Your task to perform on an android device: Go to eBay Image 0: 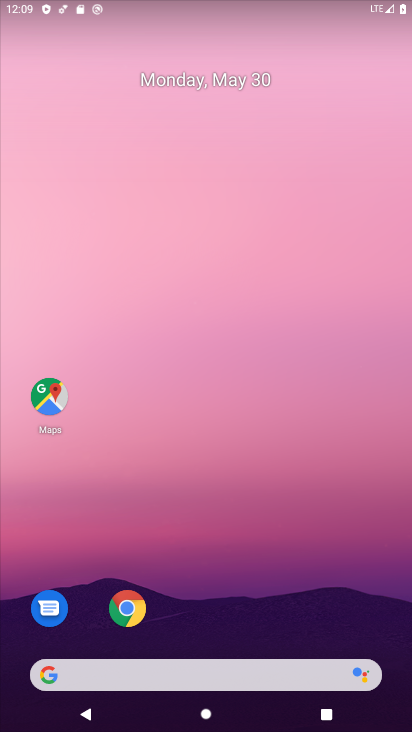
Step 0: click (132, 608)
Your task to perform on an android device: Go to eBay Image 1: 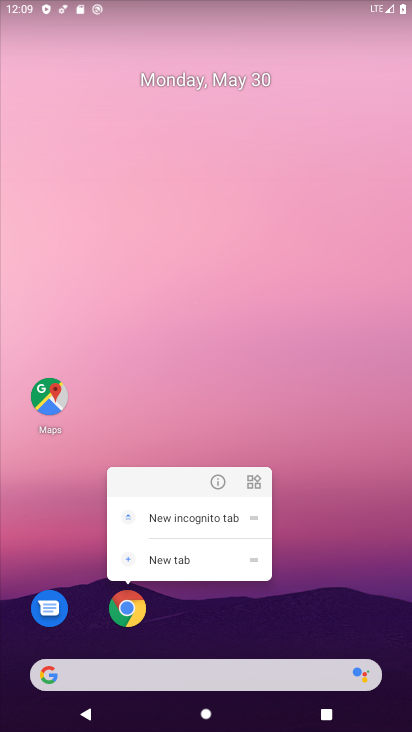
Step 1: click (132, 608)
Your task to perform on an android device: Go to eBay Image 2: 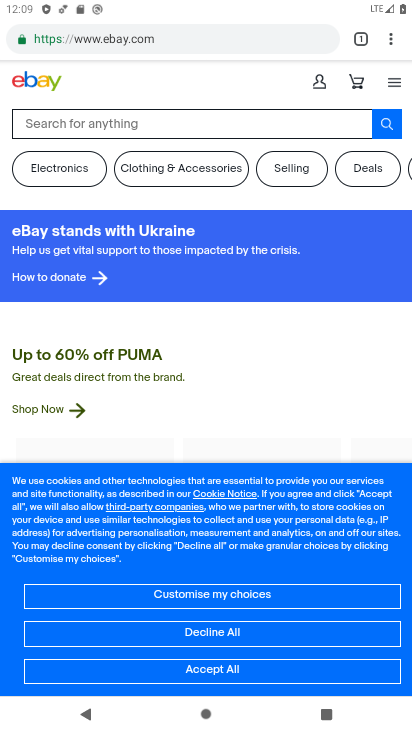
Step 2: click (44, 78)
Your task to perform on an android device: Go to eBay Image 3: 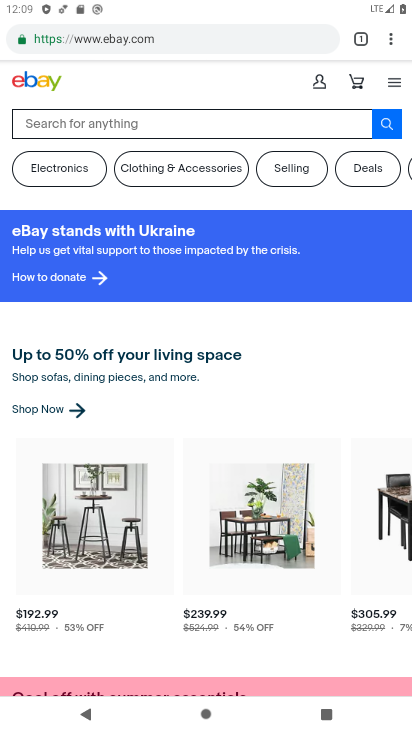
Step 3: task complete